Your task to perform on an android device: toggle wifi Image 0: 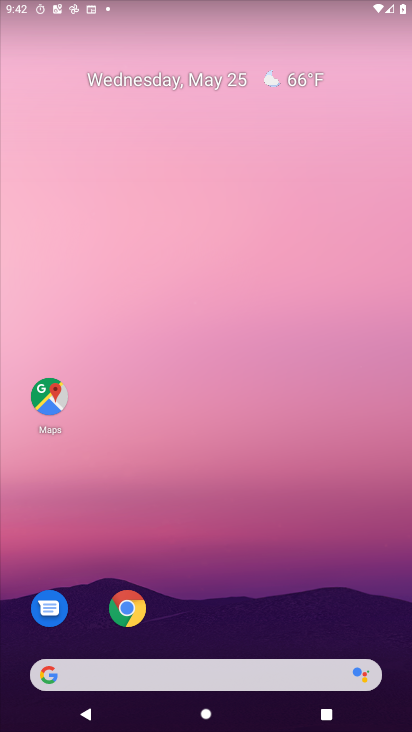
Step 0: drag from (222, 727) to (211, 110)
Your task to perform on an android device: toggle wifi Image 1: 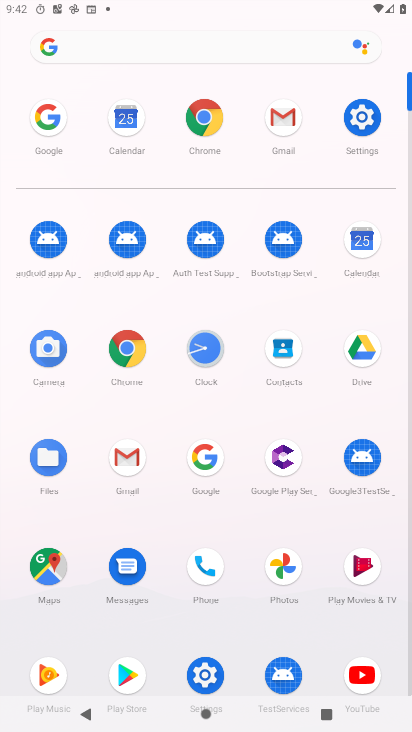
Step 1: click (369, 119)
Your task to perform on an android device: toggle wifi Image 2: 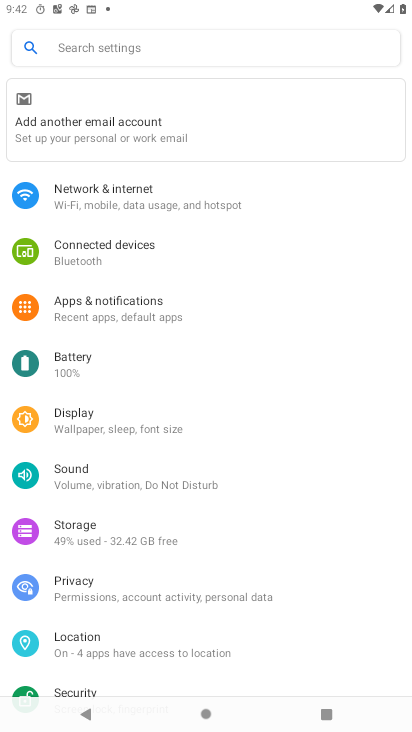
Step 2: click (80, 202)
Your task to perform on an android device: toggle wifi Image 3: 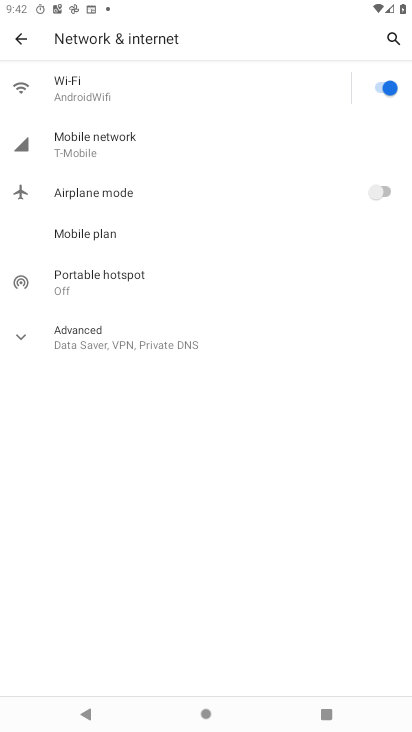
Step 3: click (380, 92)
Your task to perform on an android device: toggle wifi Image 4: 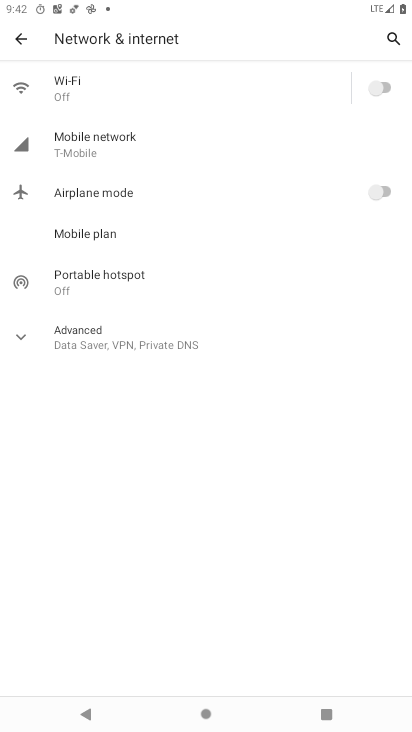
Step 4: task complete